Your task to perform on an android device: allow cookies in the chrome app Image 0: 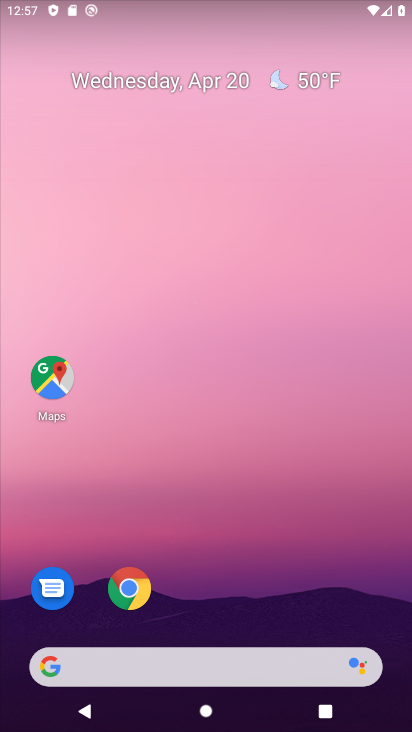
Step 0: click (119, 589)
Your task to perform on an android device: allow cookies in the chrome app Image 1: 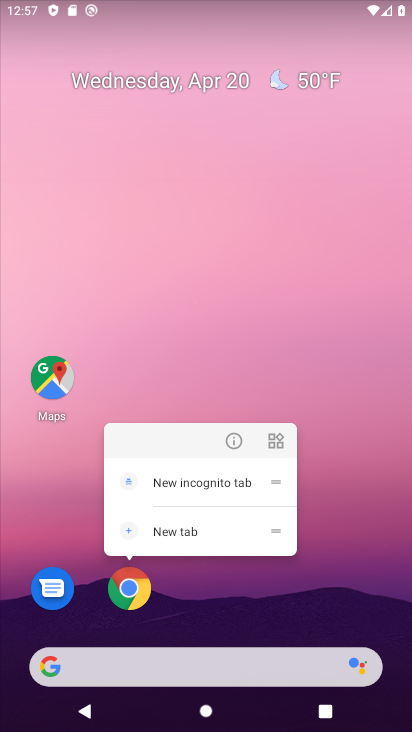
Step 1: click (124, 570)
Your task to perform on an android device: allow cookies in the chrome app Image 2: 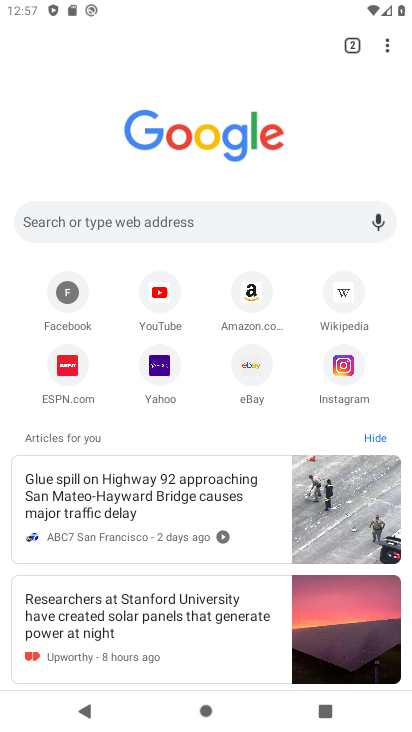
Step 2: click (392, 45)
Your task to perform on an android device: allow cookies in the chrome app Image 3: 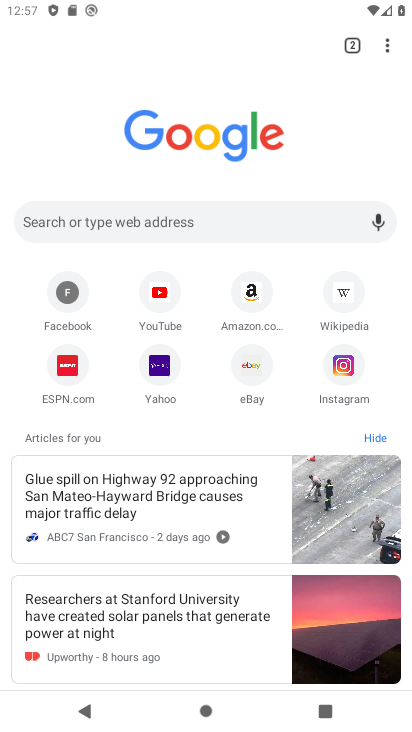
Step 3: click (392, 49)
Your task to perform on an android device: allow cookies in the chrome app Image 4: 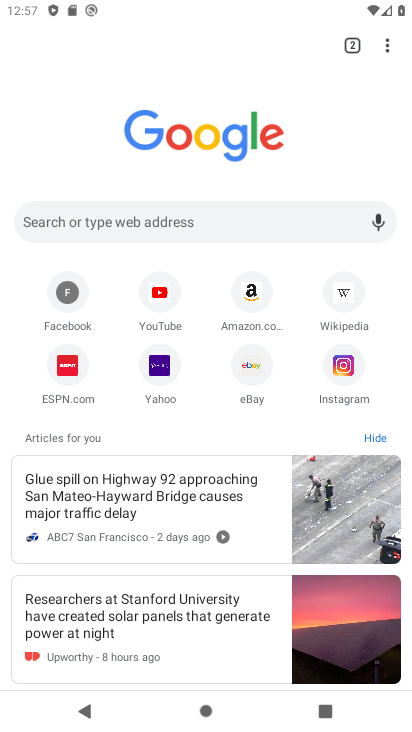
Step 4: click (385, 50)
Your task to perform on an android device: allow cookies in the chrome app Image 5: 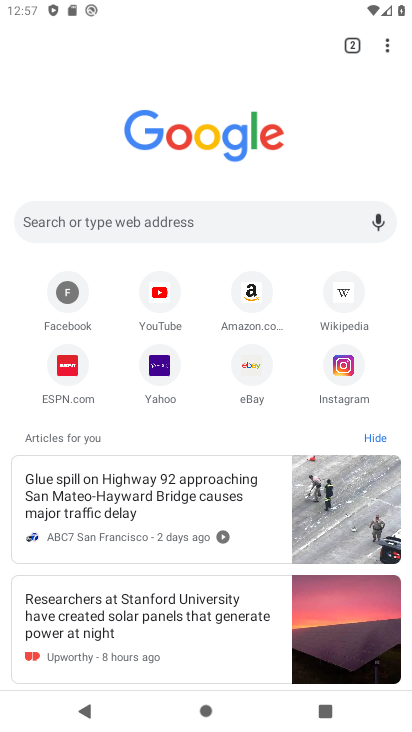
Step 5: click (385, 50)
Your task to perform on an android device: allow cookies in the chrome app Image 6: 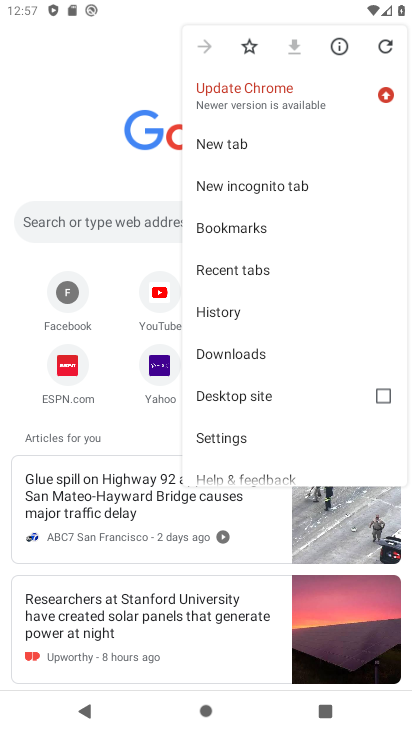
Step 6: click (219, 434)
Your task to perform on an android device: allow cookies in the chrome app Image 7: 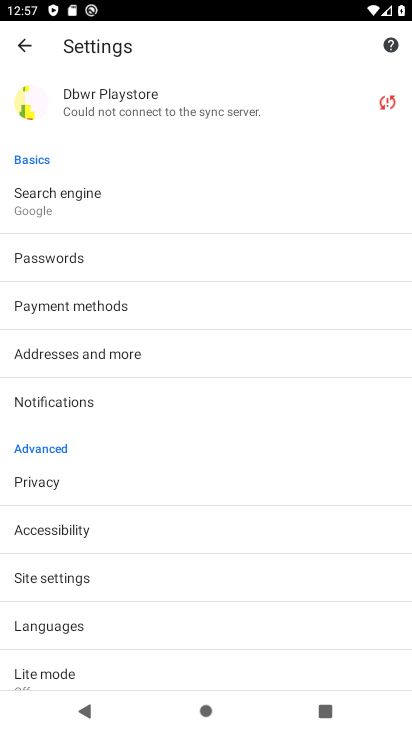
Step 7: click (56, 583)
Your task to perform on an android device: allow cookies in the chrome app Image 8: 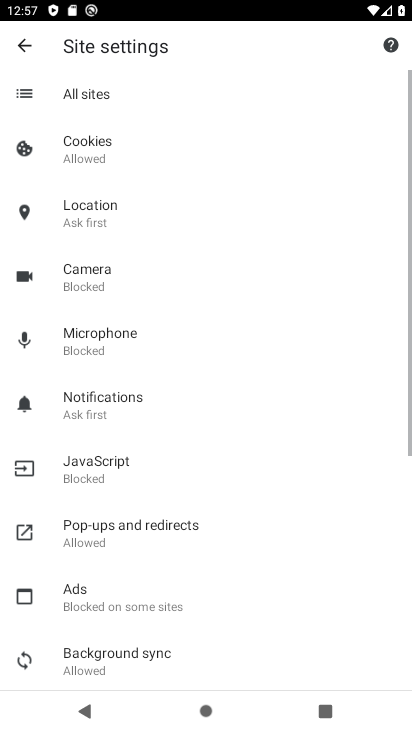
Step 8: click (109, 150)
Your task to perform on an android device: allow cookies in the chrome app Image 9: 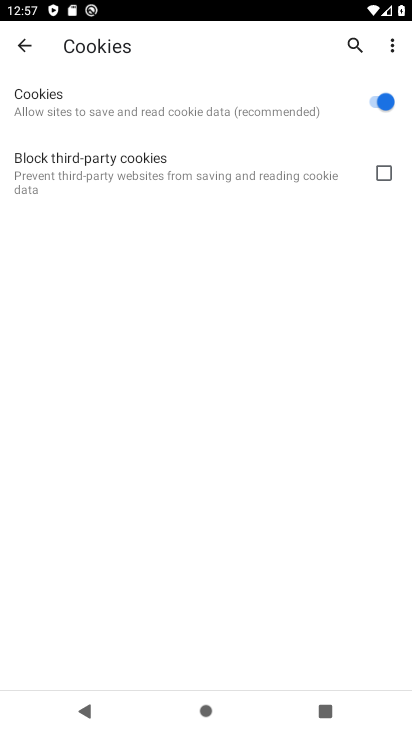
Step 9: task complete